Your task to perform on an android device: Go to Google maps Image 0: 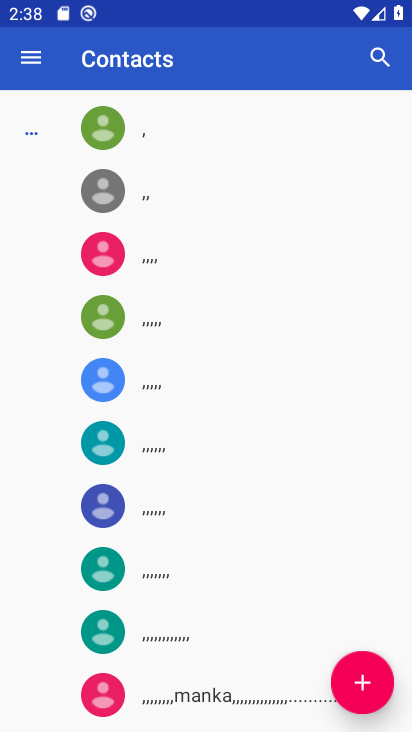
Step 0: press home button
Your task to perform on an android device: Go to Google maps Image 1: 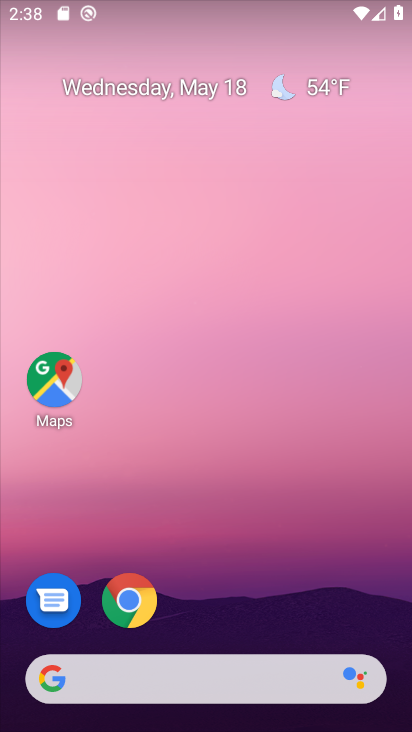
Step 1: click (64, 403)
Your task to perform on an android device: Go to Google maps Image 2: 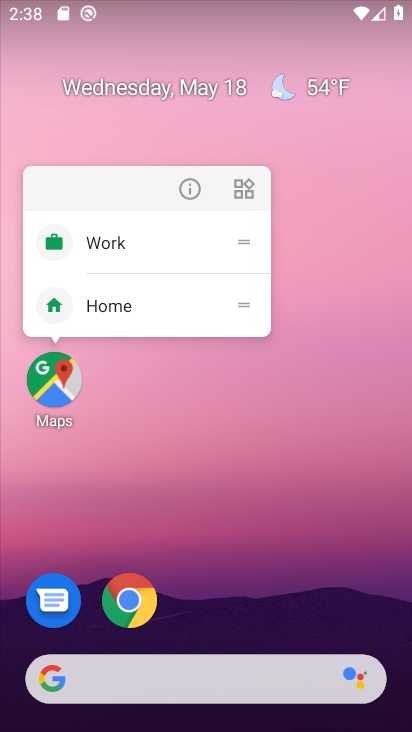
Step 2: click (54, 364)
Your task to perform on an android device: Go to Google maps Image 3: 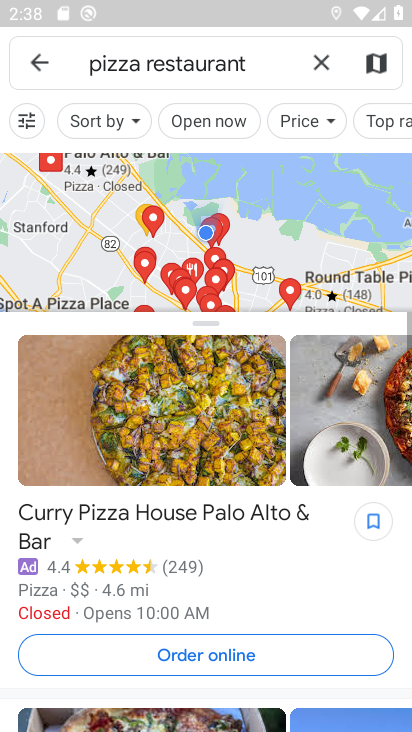
Step 3: click (38, 65)
Your task to perform on an android device: Go to Google maps Image 4: 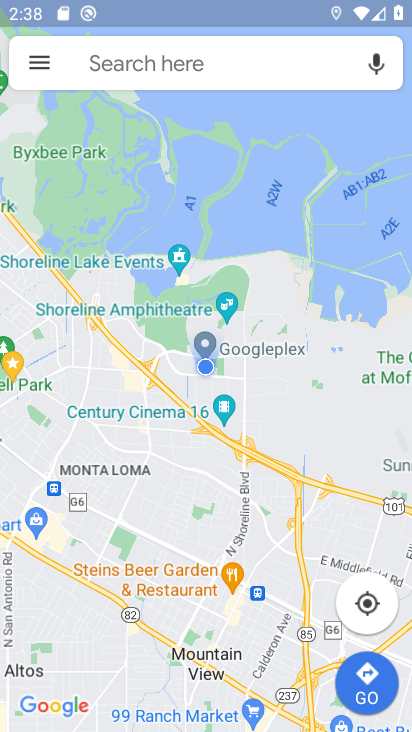
Step 4: task complete